Your task to perform on an android device: add a contact Image 0: 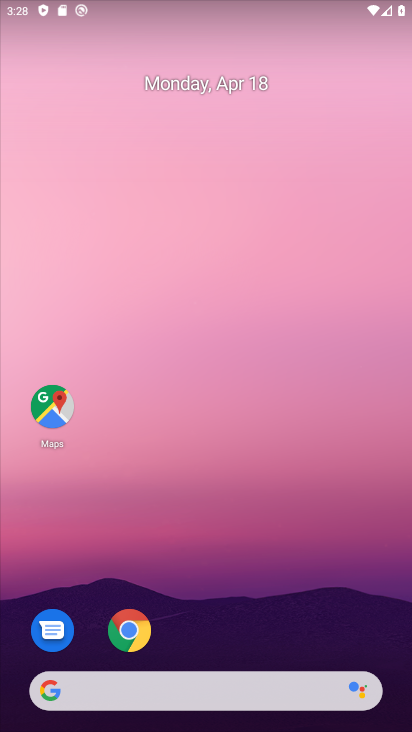
Step 0: drag from (131, 665) to (243, 61)
Your task to perform on an android device: add a contact Image 1: 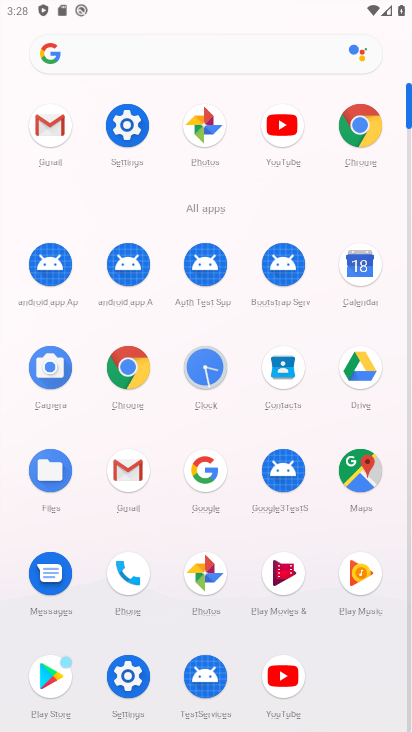
Step 1: click (274, 368)
Your task to perform on an android device: add a contact Image 2: 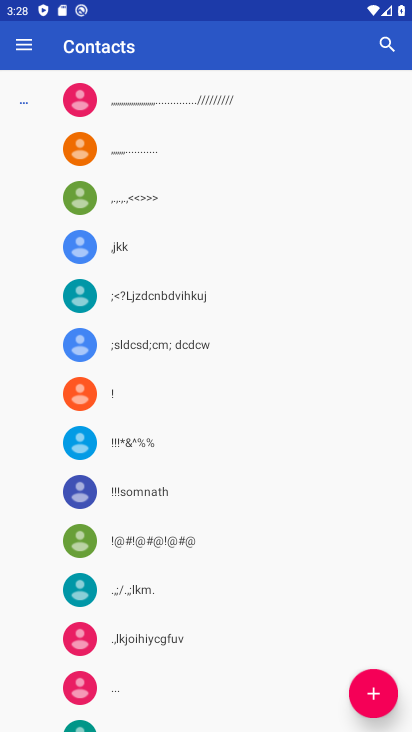
Step 2: click (390, 699)
Your task to perform on an android device: add a contact Image 3: 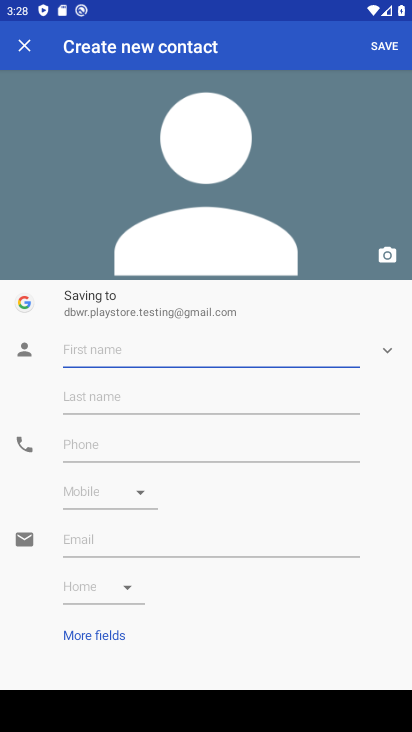
Step 3: type "ronald "
Your task to perform on an android device: add a contact Image 4: 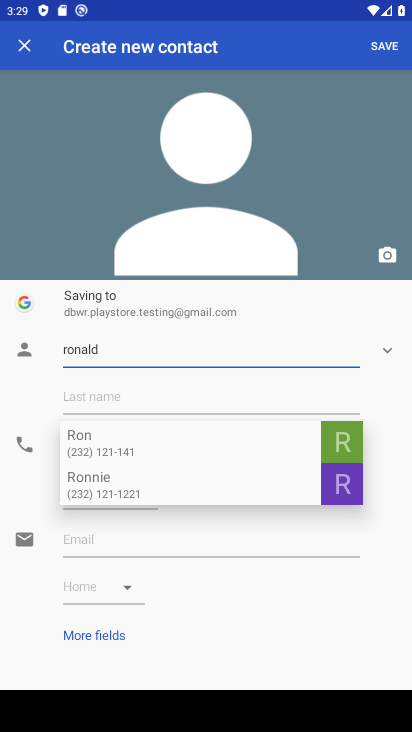
Step 4: click (381, 589)
Your task to perform on an android device: add a contact Image 5: 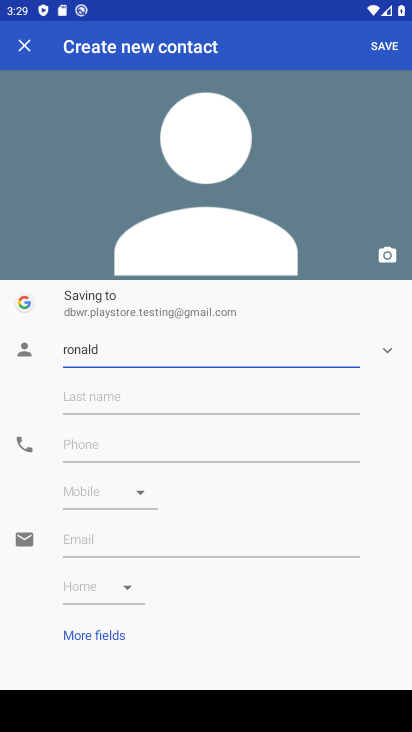
Step 5: click (139, 447)
Your task to perform on an android device: add a contact Image 6: 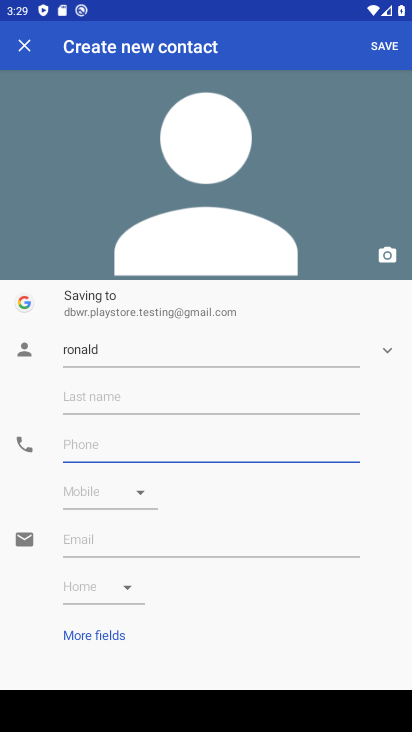
Step 6: type "23223211"
Your task to perform on an android device: add a contact Image 7: 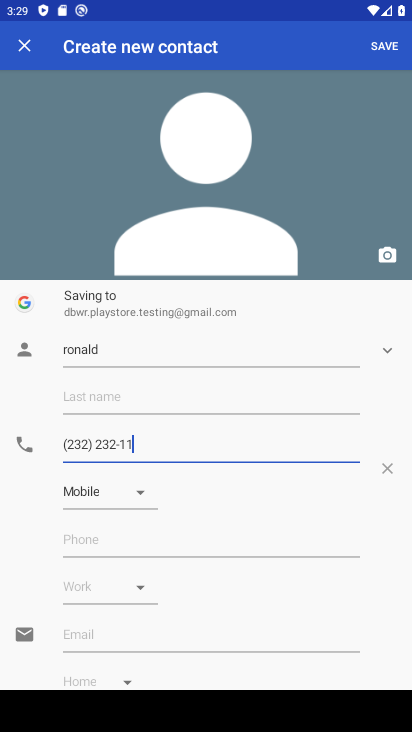
Step 7: click (390, 44)
Your task to perform on an android device: add a contact Image 8: 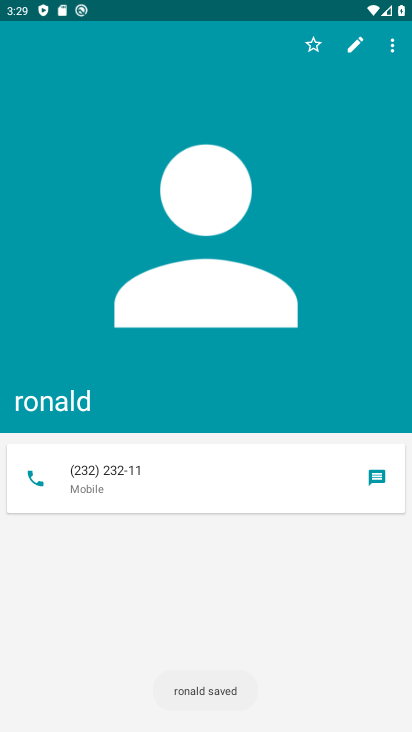
Step 8: task complete